Your task to perform on an android device: Go to Maps Image 0: 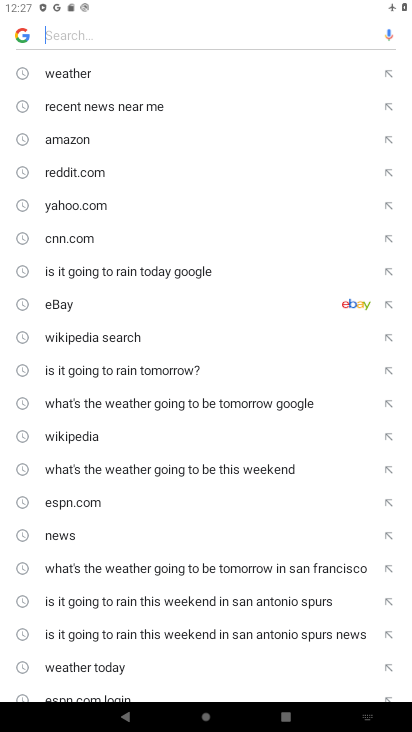
Step 0: press home button
Your task to perform on an android device: Go to Maps Image 1: 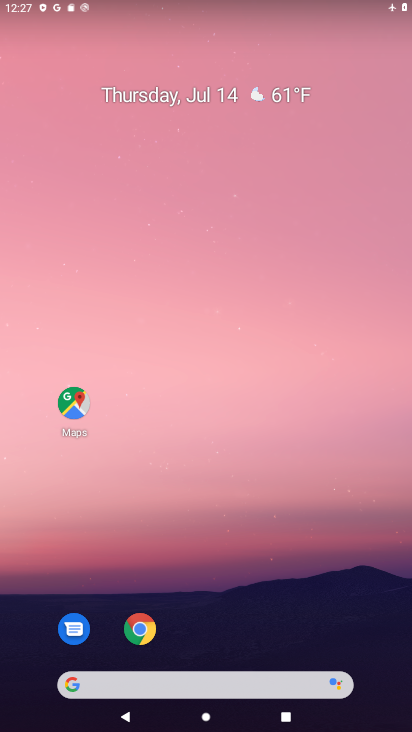
Step 1: click (63, 416)
Your task to perform on an android device: Go to Maps Image 2: 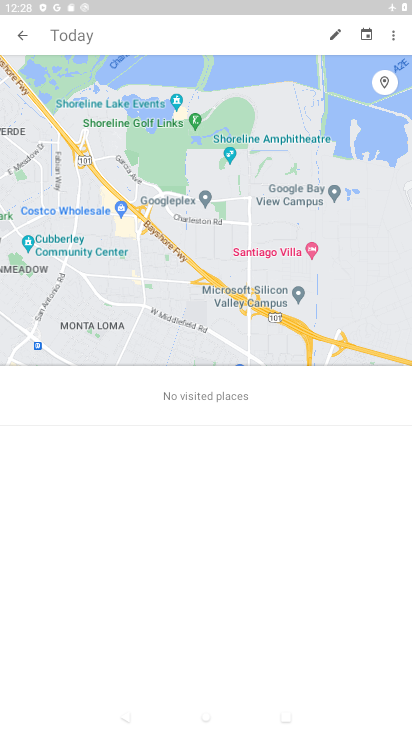
Step 2: click (20, 32)
Your task to perform on an android device: Go to Maps Image 3: 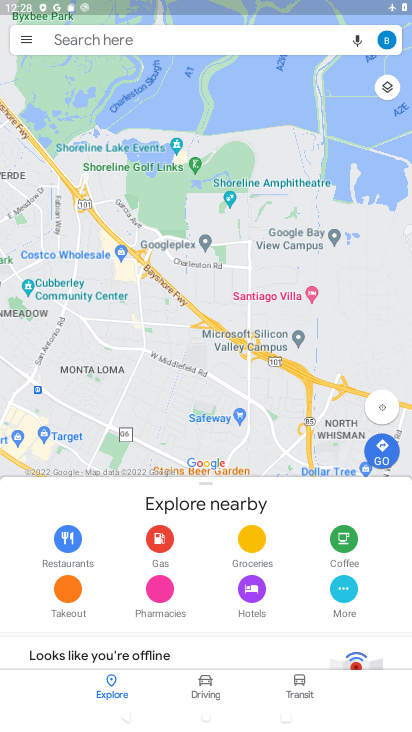
Step 3: task complete